Your task to perform on an android device: Do I have any events this weekend? Image 0: 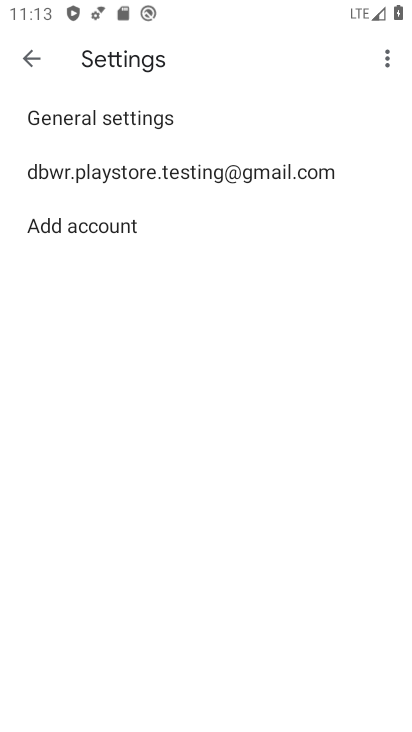
Step 0: press home button
Your task to perform on an android device: Do I have any events this weekend? Image 1: 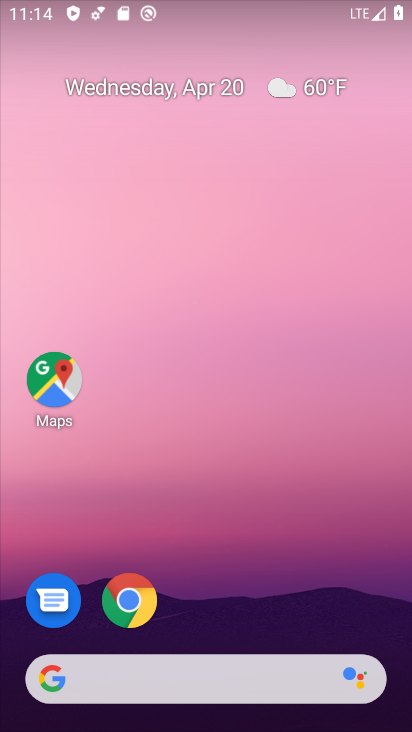
Step 1: drag from (315, 635) to (293, 8)
Your task to perform on an android device: Do I have any events this weekend? Image 2: 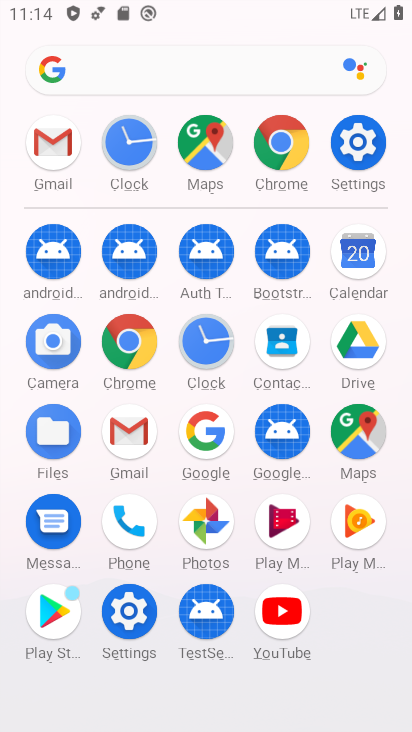
Step 2: click (359, 249)
Your task to perform on an android device: Do I have any events this weekend? Image 3: 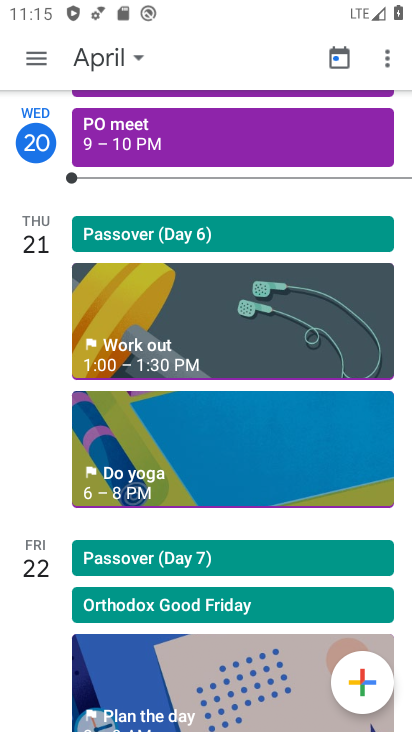
Step 3: task complete